Your task to perform on an android device: Open internet settings Image 0: 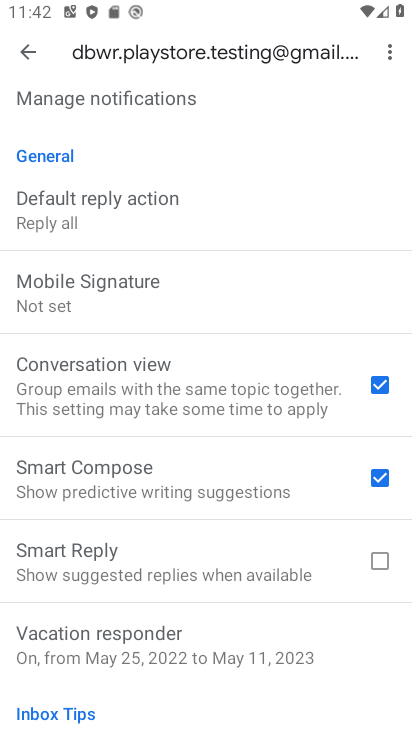
Step 0: press home button
Your task to perform on an android device: Open internet settings Image 1: 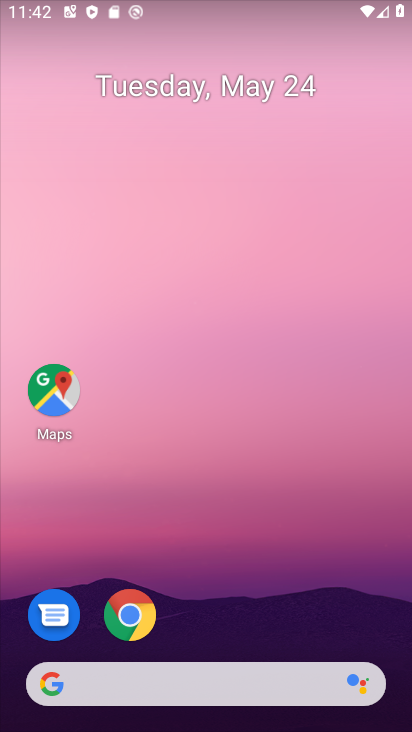
Step 1: drag from (267, 576) to (248, 126)
Your task to perform on an android device: Open internet settings Image 2: 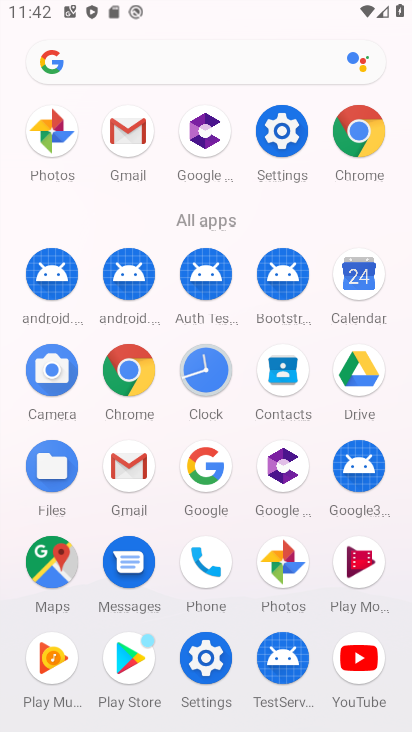
Step 2: click (284, 132)
Your task to perform on an android device: Open internet settings Image 3: 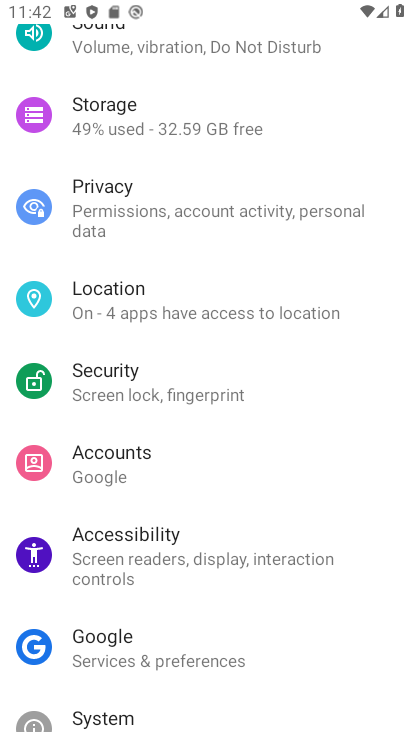
Step 3: drag from (188, 229) to (217, 348)
Your task to perform on an android device: Open internet settings Image 4: 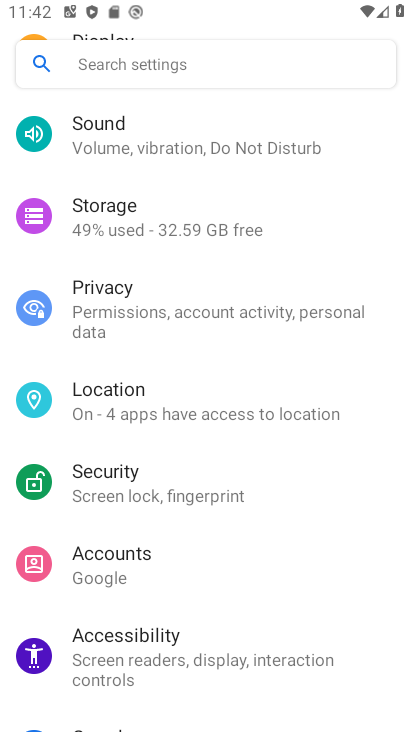
Step 4: drag from (223, 199) to (236, 341)
Your task to perform on an android device: Open internet settings Image 5: 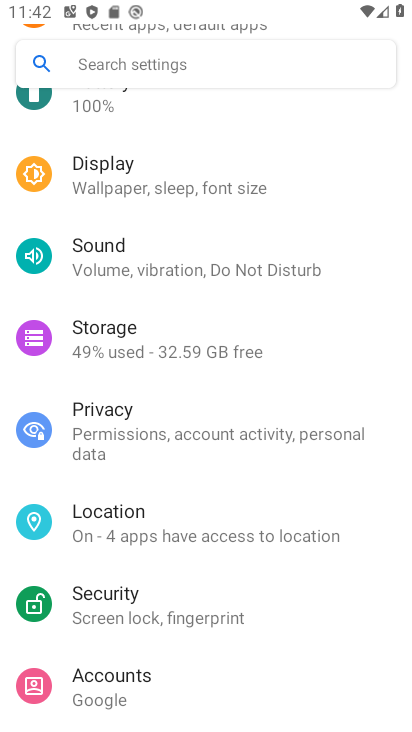
Step 5: drag from (211, 155) to (246, 317)
Your task to perform on an android device: Open internet settings Image 6: 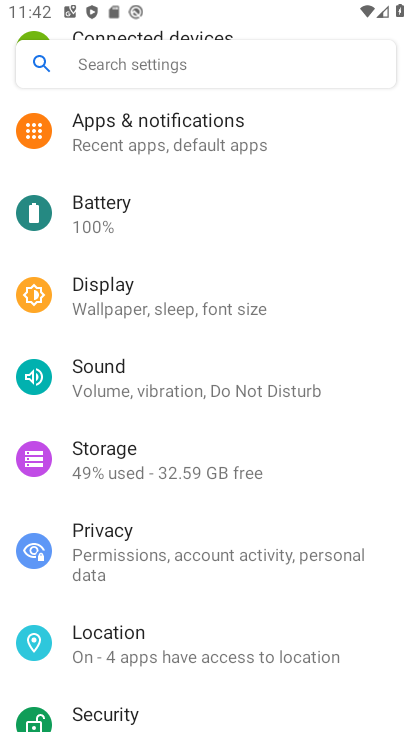
Step 6: drag from (219, 201) to (212, 338)
Your task to perform on an android device: Open internet settings Image 7: 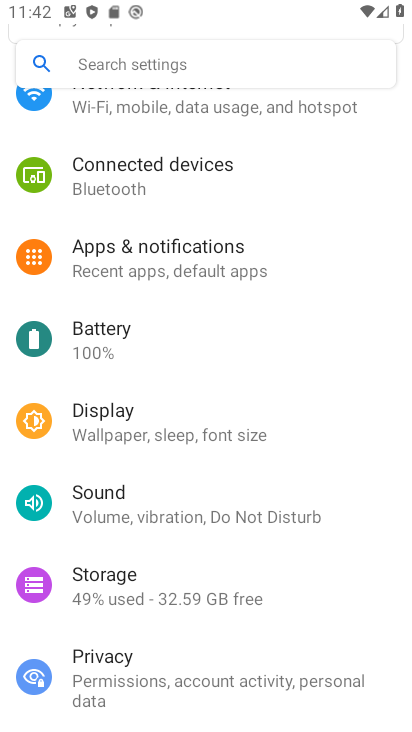
Step 7: drag from (175, 208) to (213, 344)
Your task to perform on an android device: Open internet settings Image 8: 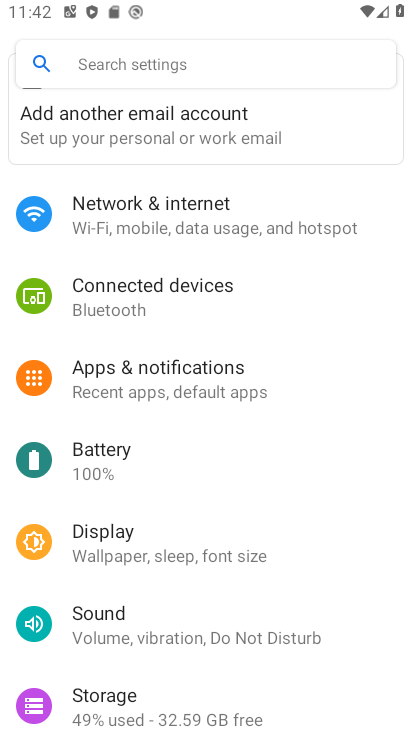
Step 8: click (169, 211)
Your task to perform on an android device: Open internet settings Image 9: 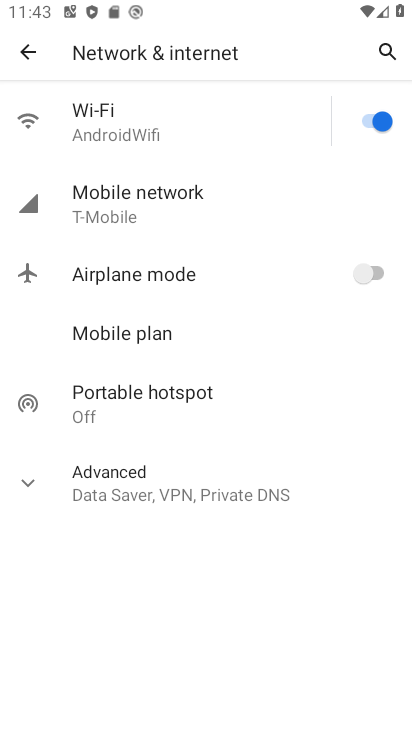
Step 9: click (115, 138)
Your task to perform on an android device: Open internet settings Image 10: 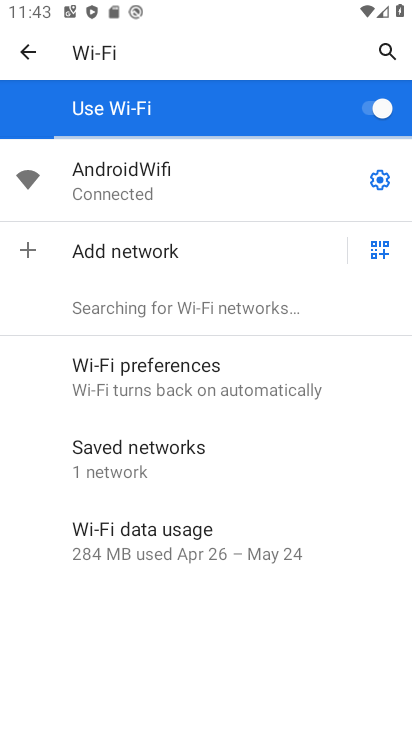
Step 10: task complete